Your task to perform on an android device: Check the news Image 0: 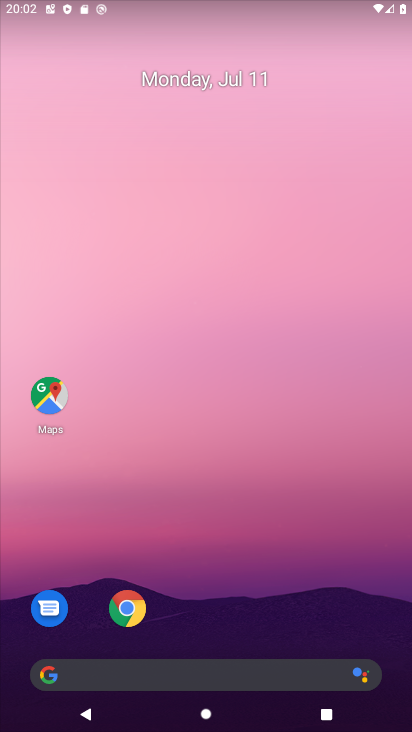
Step 0: click (270, 623)
Your task to perform on an android device: Check the news Image 1: 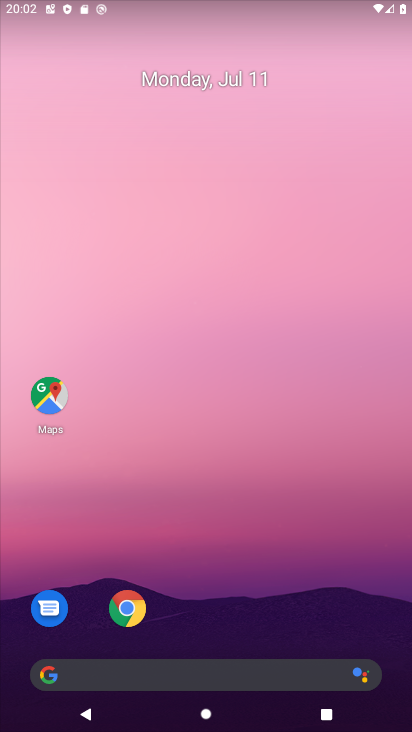
Step 1: drag from (270, 623) to (234, 27)
Your task to perform on an android device: Check the news Image 2: 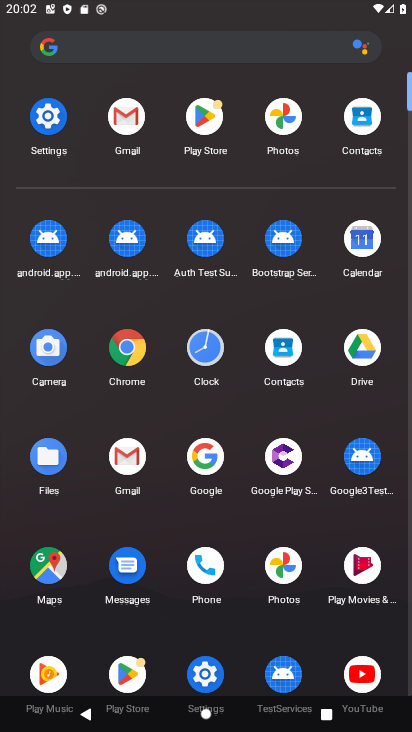
Step 2: click (227, 49)
Your task to perform on an android device: Check the news Image 3: 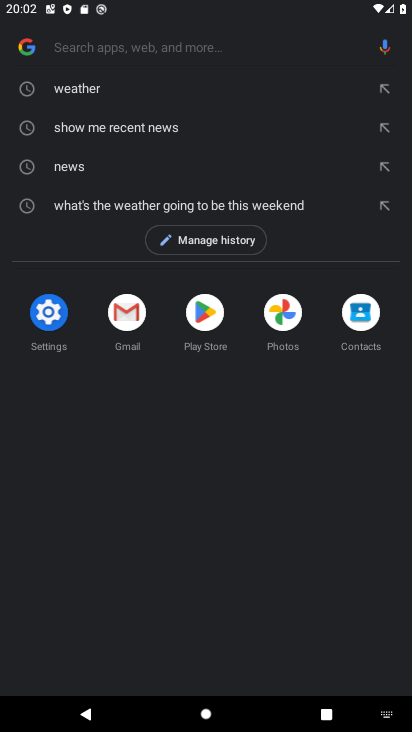
Step 3: click (108, 179)
Your task to perform on an android device: Check the news Image 4: 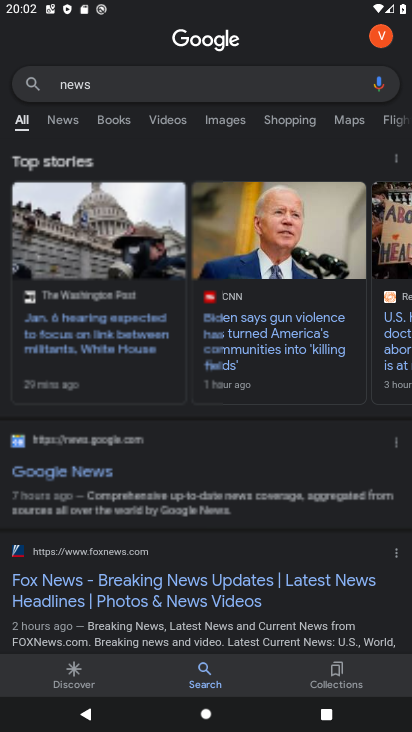
Step 4: task complete